Your task to perform on an android device: Go to Wikipedia Image 0: 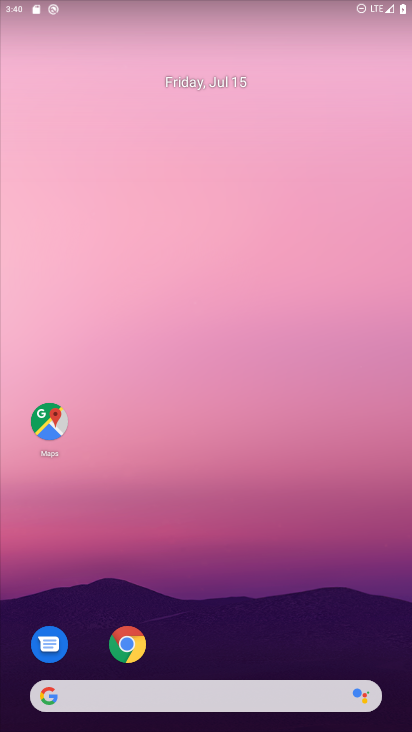
Step 0: click (119, 646)
Your task to perform on an android device: Go to Wikipedia Image 1: 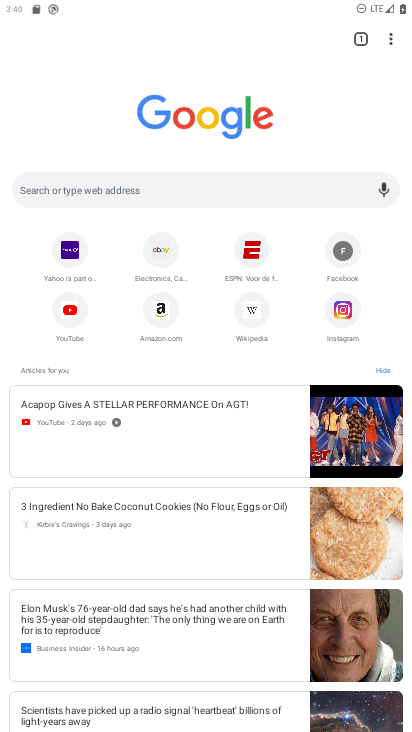
Step 1: click (261, 301)
Your task to perform on an android device: Go to Wikipedia Image 2: 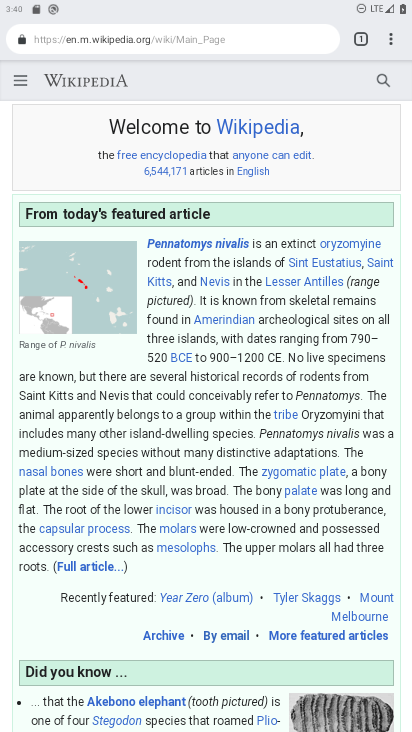
Step 2: task complete